Your task to perform on an android device: change the upload size in google photos Image 0: 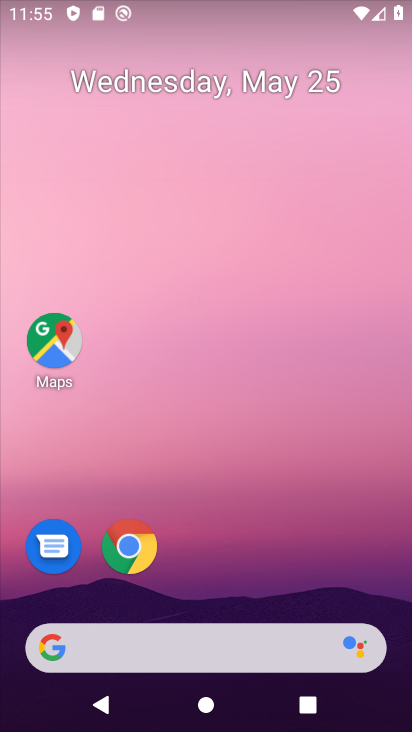
Step 0: drag from (267, 395) to (278, 25)
Your task to perform on an android device: change the upload size in google photos Image 1: 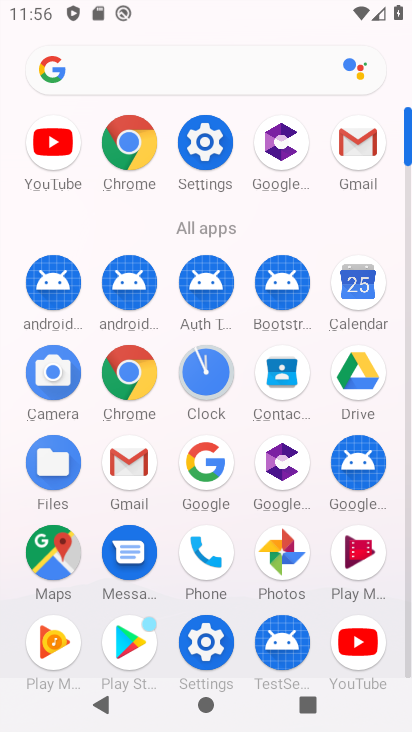
Step 1: click (267, 559)
Your task to perform on an android device: change the upload size in google photos Image 2: 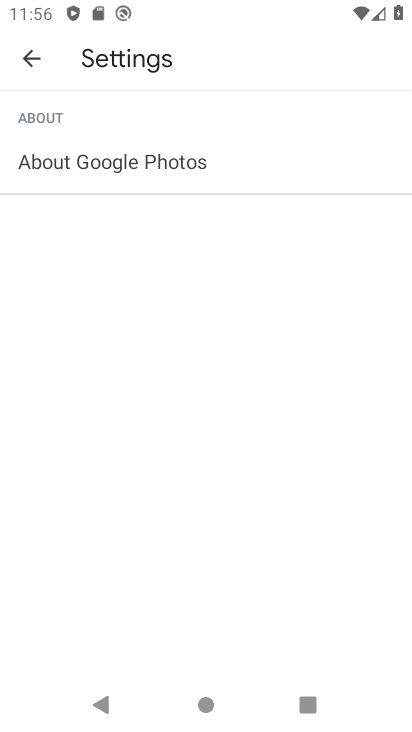
Step 2: click (36, 62)
Your task to perform on an android device: change the upload size in google photos Image 3: 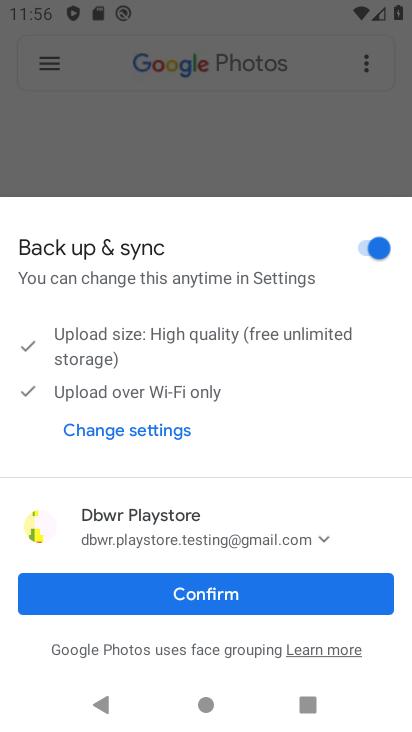
Step 3: click (168, 386)
Your task to perform on an android device: change the upload size in google photos Image 4: 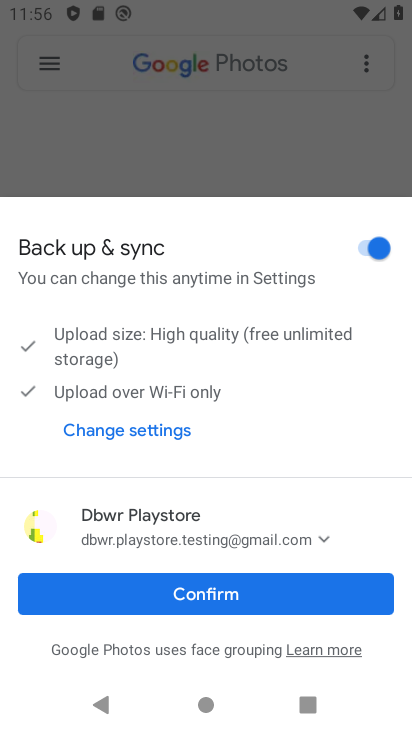
Step 4: click (240, 588)
Your task to perform on an android device: change the upload size in google photos Image 5: 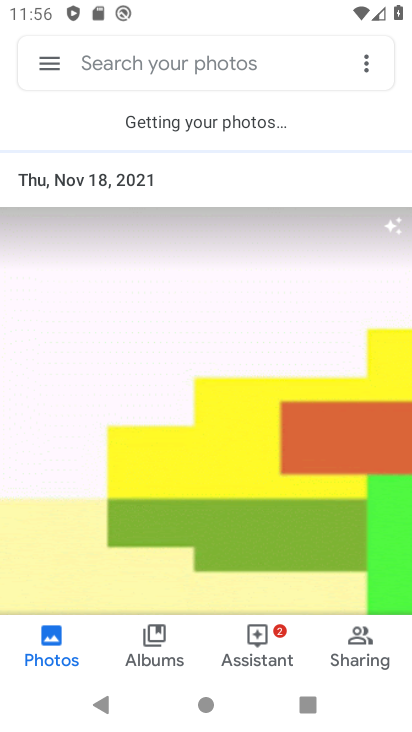
Step 5: click (60, 60)
Your task to perform on an android device: change the upload size in google photos Image 6: 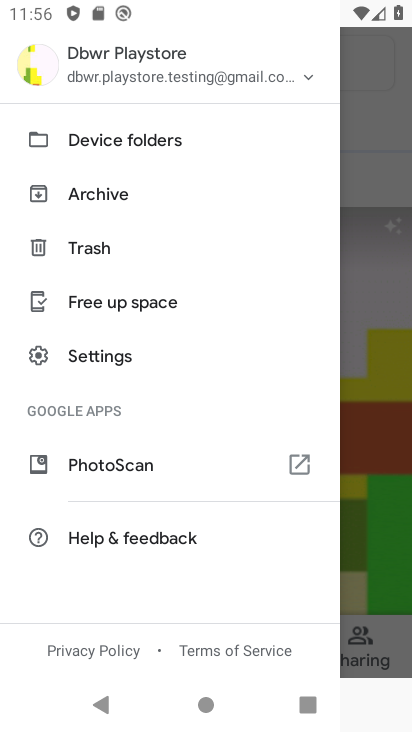
Step 6: click (139, 364)
Your task to perform on an android device: change the upload size in google photos Image 7: 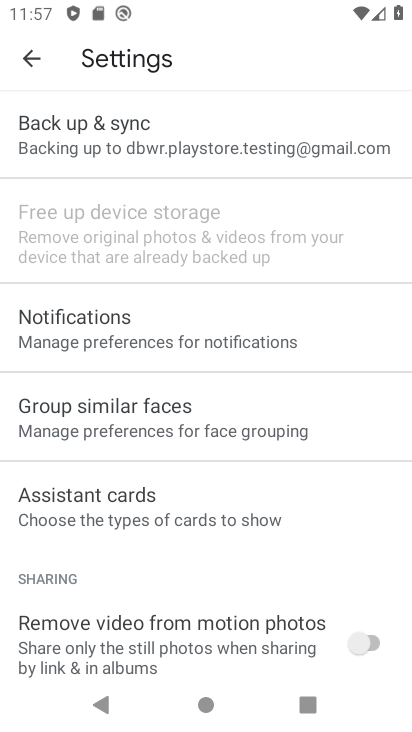
Step 7: click (297, 137)
Your task to perform on an android device: change the upload size in google photos Image 8: 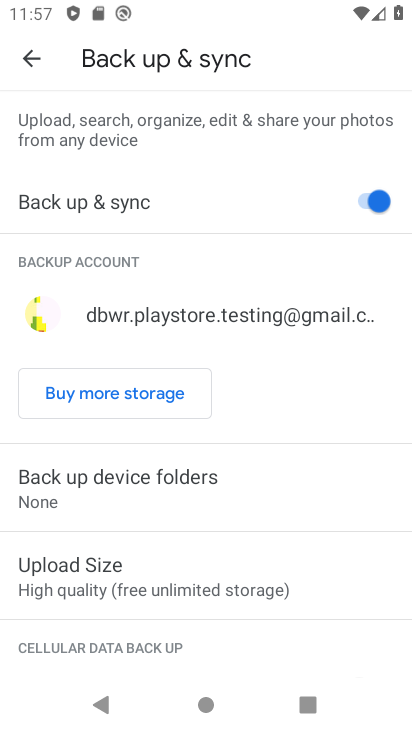
Step 8: click (258, 568)
Your task to perform on an android device: change the upload size in google photos Image 9: 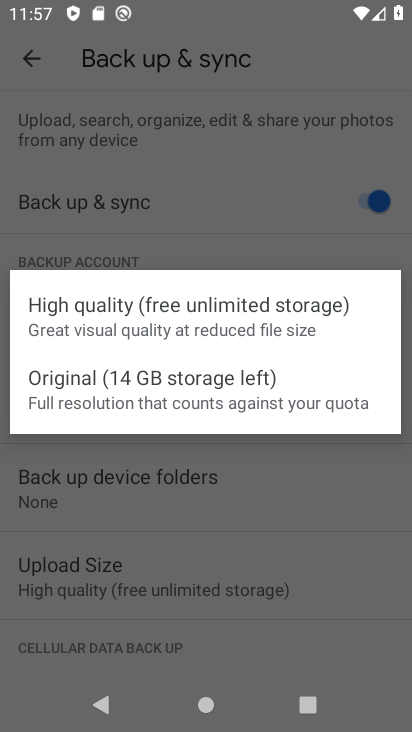
Step 9: click (268, 384)
Your task to perform on an android device: change the upload size in google photos Image 10: 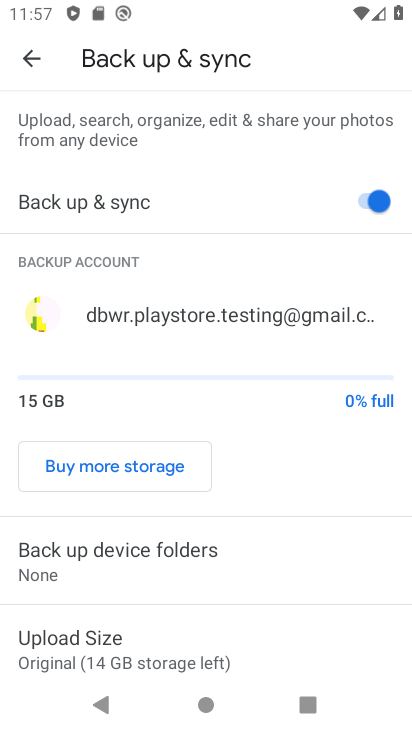
Step 10: task complete